Your task to perform on an android device: turn on the 12-hour format for clock Image 0: 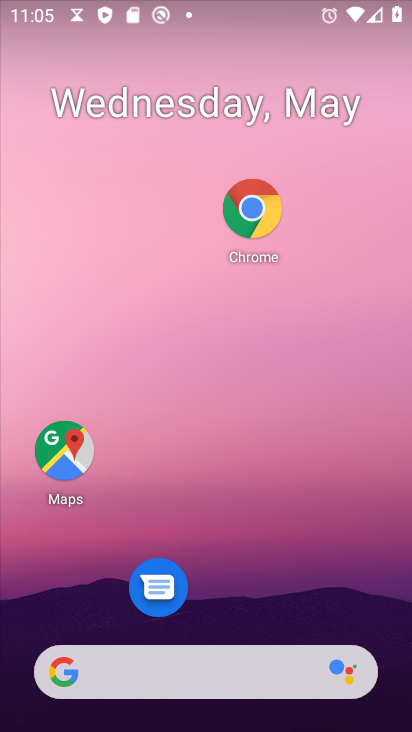
Step 0: drag from (199, 599) to (222, 7)
Your task to perform on an android device: turn on the 12-hour format for clock Image 1: 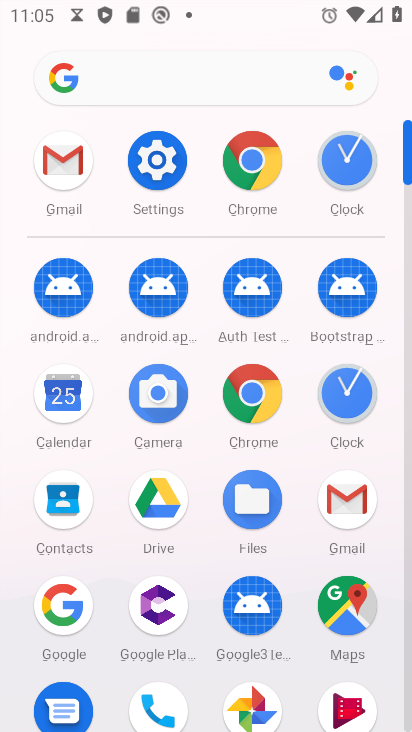
Step 1: click (340, 442)
Your task to perform on an android device: turn on the 12-hour format for clock Image 2: 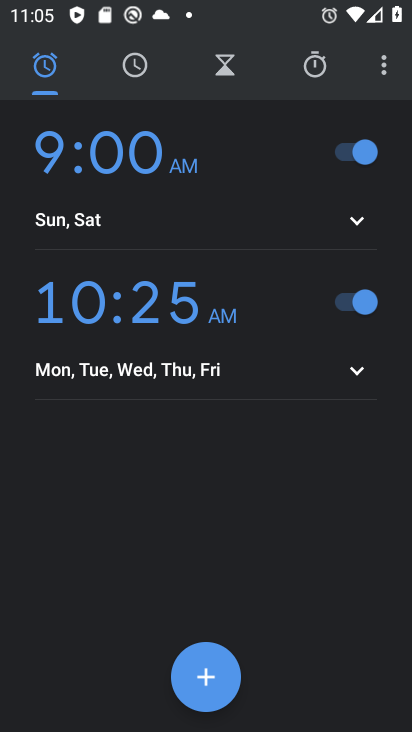
Step 2: click (391, 67)
Your task to perform on an android device: turn on the 12-hour format for clock Image 3: 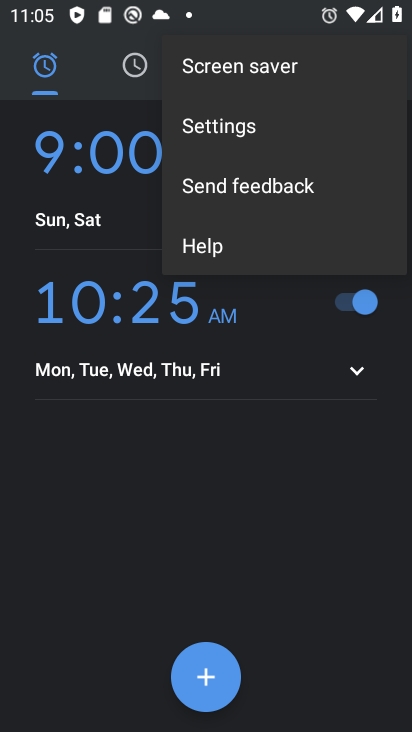
Step 3: click (242, 135)
Your task to perform on an android device: turn on the 12-hour format for clock Image 4: 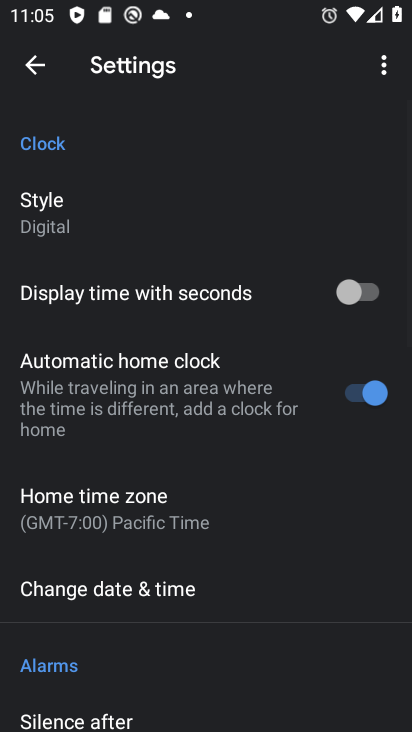
Step 4: drag from (183, 668) to (145, 217)
Your task to perform on an android device: turn on the 12-hour format for clock Image 5: 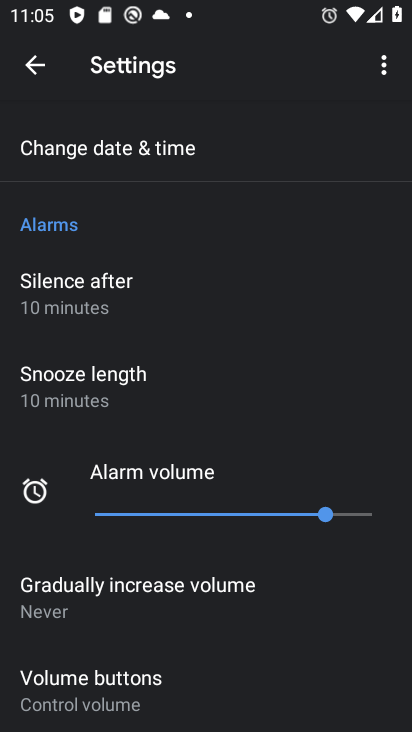
Step 5: drag from (109, 658) to (138, 251)
Your task to perform on an android device: turn on the 12-hour format for clock Image 6: 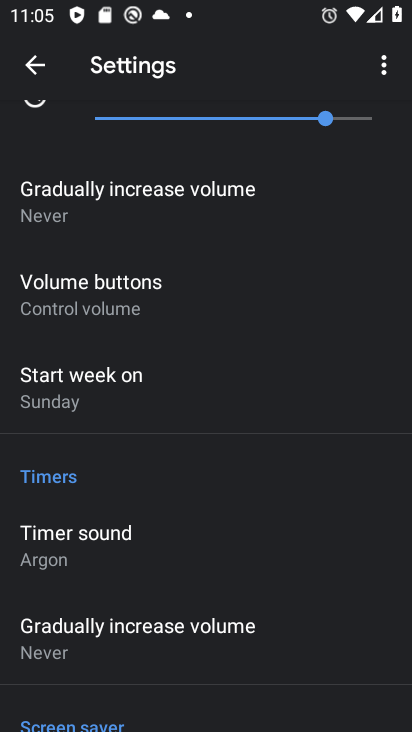
Step 6: drag from (162, 250) to (112, 703)
Your task to perform on an android device: turn on the 12-hour format for clock Image 7: 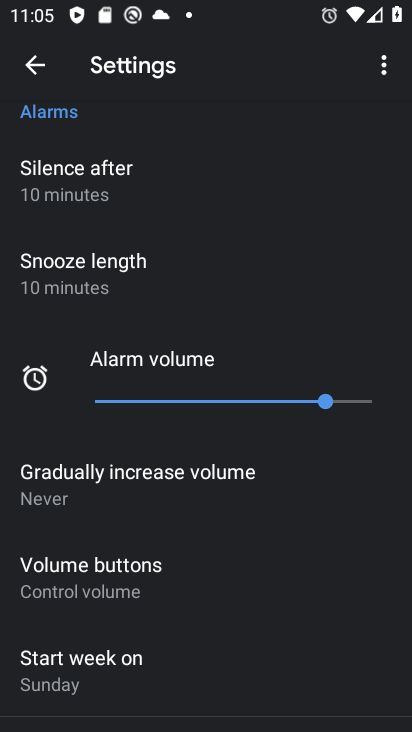
Step 7: click (165, 724)
Your task to perform on an android device: turn on the 12-hour format for clock Image 8: 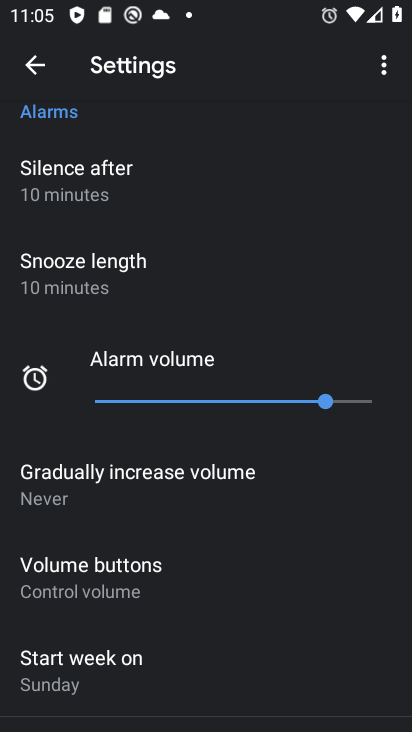
Step 8: drag from (247, 208) to (212, 523)
Your task to perform on an android device: turn on the 12-hour format for clock Image 9: 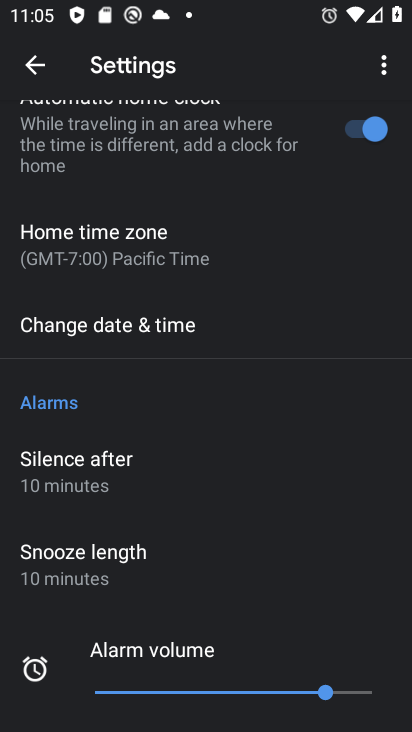
Step 9: click (138, 325)
Your task to perform on an android device: turn on the 12-hour format for clock Image 10: 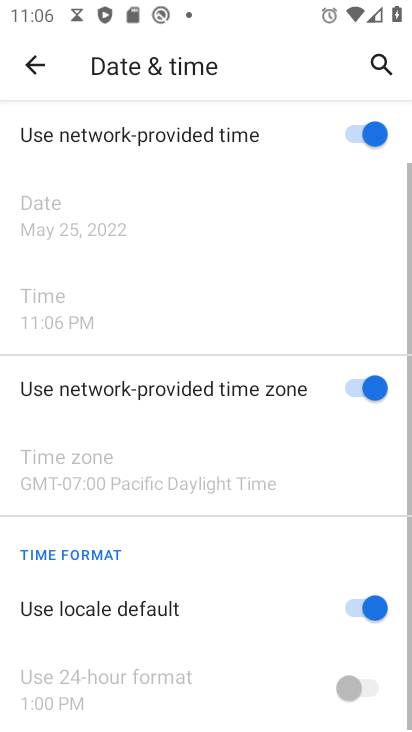
Step 10: task complete